Your task to perform on an android device: open chrome and create a bookmark for the current page Image 0: 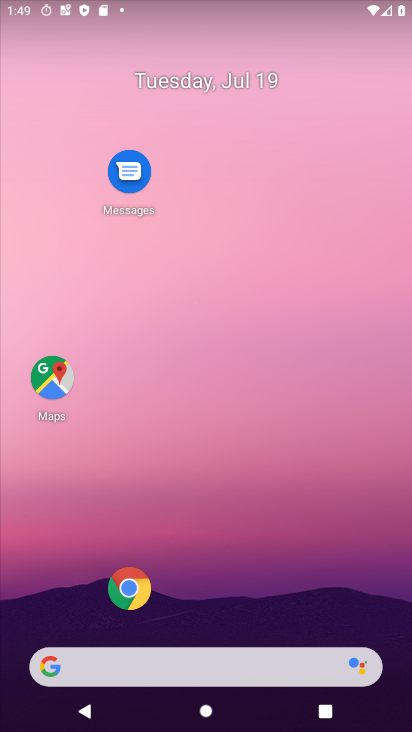
Step 0: click (141, 592)
Your task to perform on an android device: open chrome and create a bookmark for the current page Image 1: 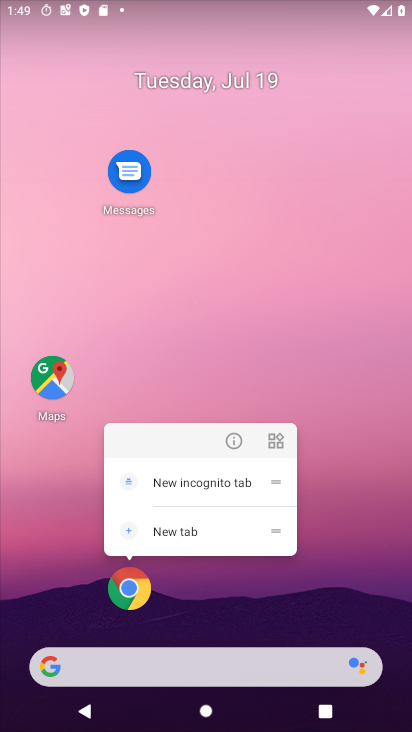
Step 1: click (118, 598)
Your task to perform on an android device: open chrome and create a bookmark for the current page Image 2: 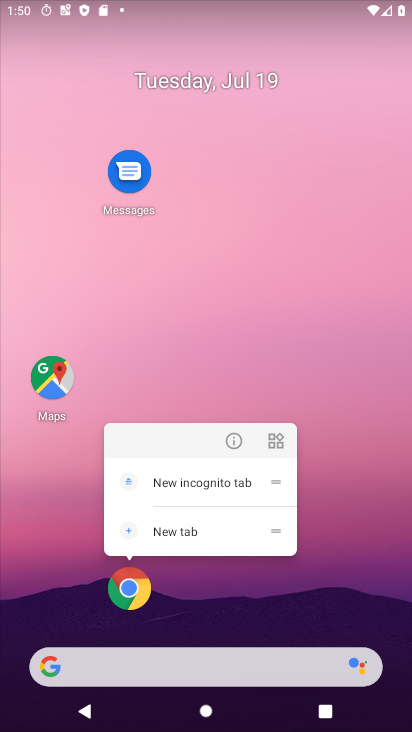
Step 2: click (118, 583)
Your task to perform on an android device: open chrome and create a bookmark for the current page Image 3: 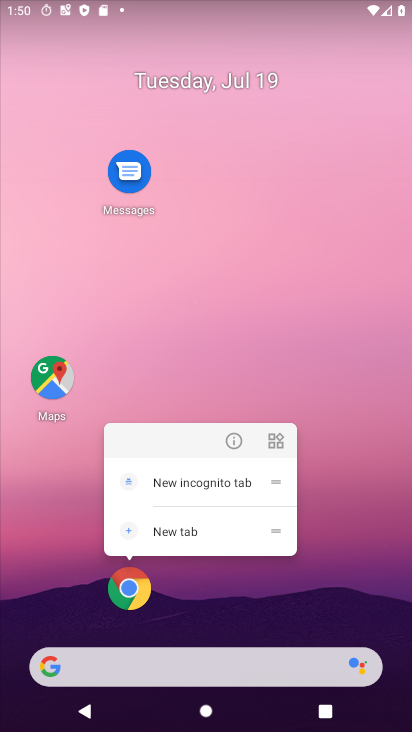
Step 3: click (126, 583)
Your task to perform on an android device: open chrome and create a bookmark for the current page Image 4: 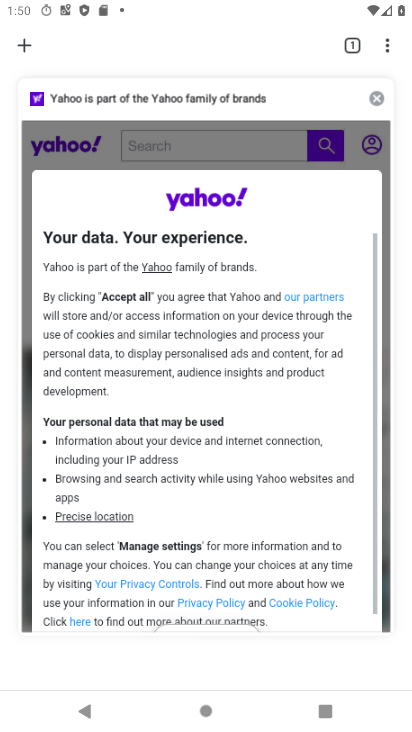
Step 4: click (383, 45)
Your task to perform on an android device: open chrome and create a bookmark for the current page Image 5: 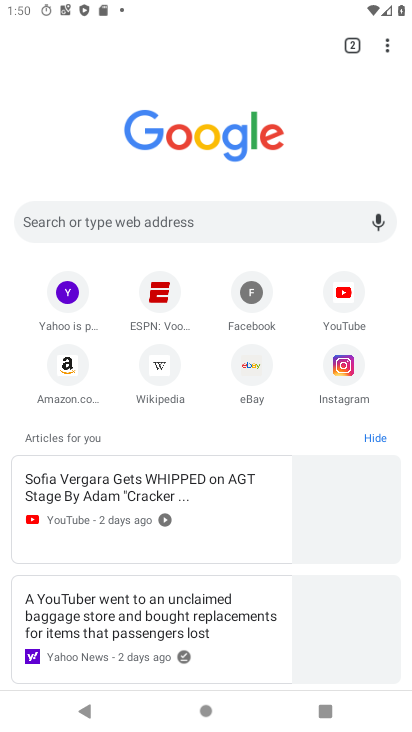
Step 5: click (387, 46)
Your task to perform on an android device: open chrome and create a bookmark for the current page Image 6: 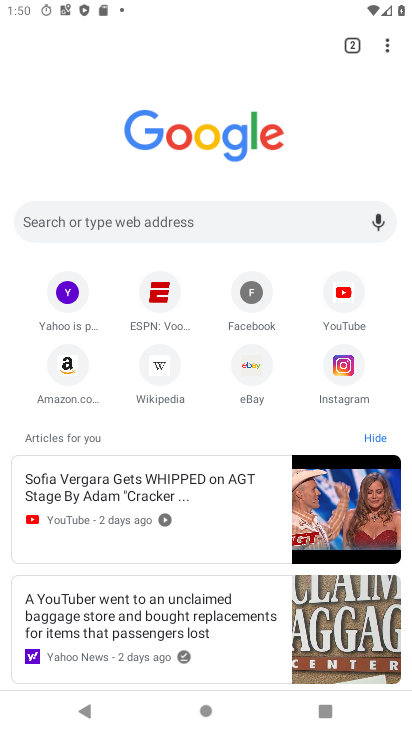
Step 6: task complete